Your task to perform on an android device: see tabs open on other devices in the chrome app Image 0: 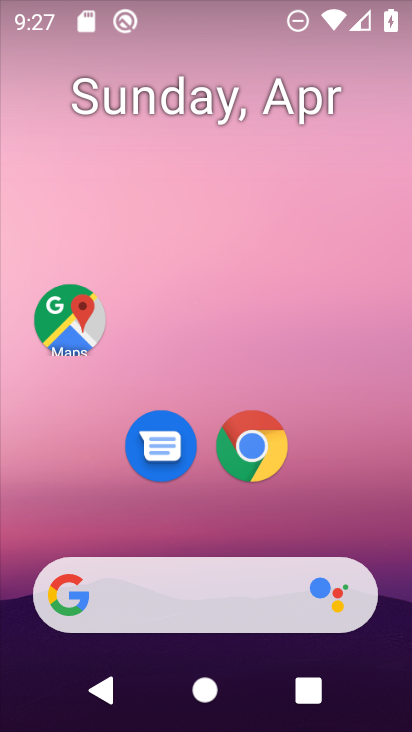
Step 0: click (281, 147)
Your task to perform on an android device: see tabs open on other devices in the chrome app Image 1: 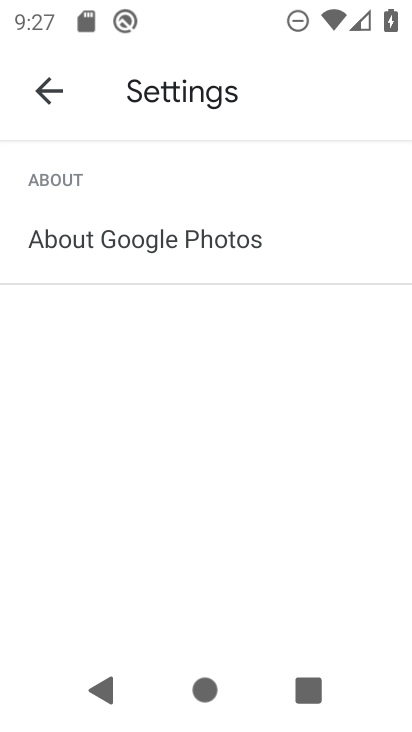
Step 1: press home button
Your task to perform on an android device: see tabs open on other devices in the chrome app Image 2: 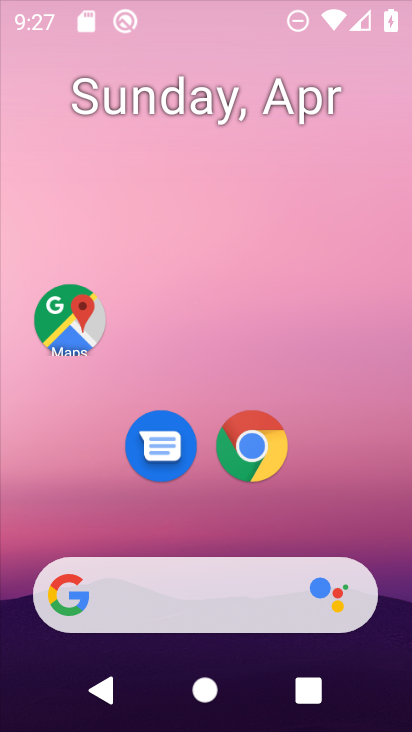
Step 2: drag from (149, 531) to (242, 191)
Your task to perform on an android device: see tabs open on other devices in the chrome app Image 3: 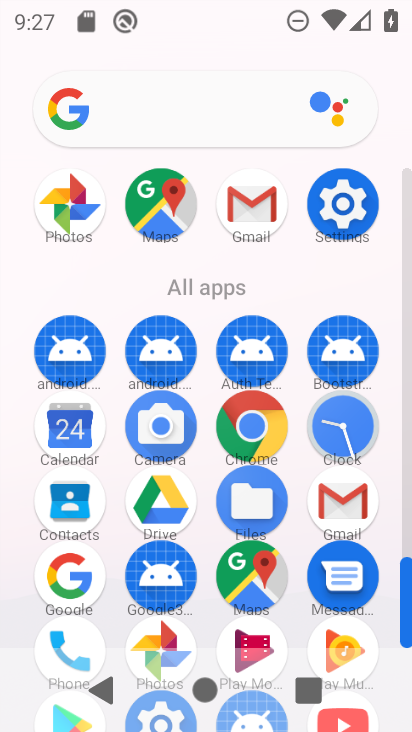
Step 3: click (256, 420)
Your task to perform on an android device: see tabs open on other devices in the chrome app Image 4: 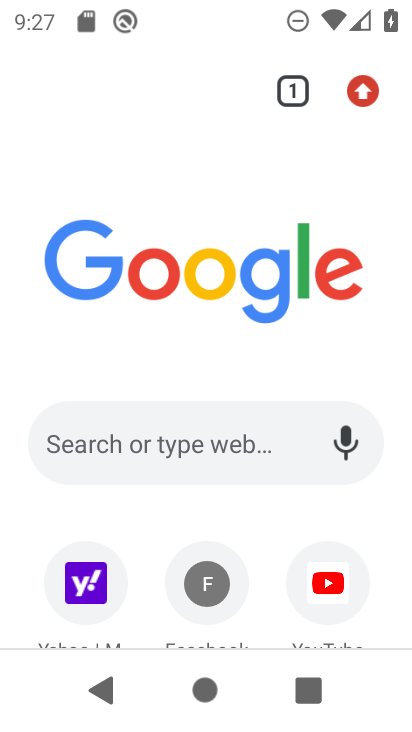
Step 4: drag from (268, 561) to (273, 206)
Your task to perform on an android device: see tabs open on other devices in the chrome app Image 5: 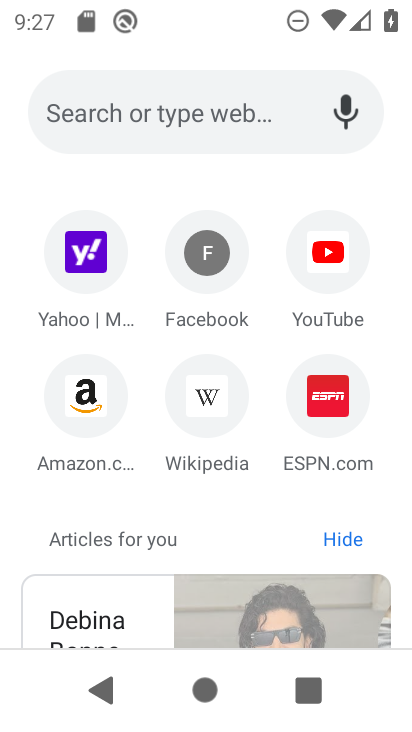
Step 5: click (370, 95)
Your task to perform on an android device: see tabs open on other devices in the chrome app Image 6: 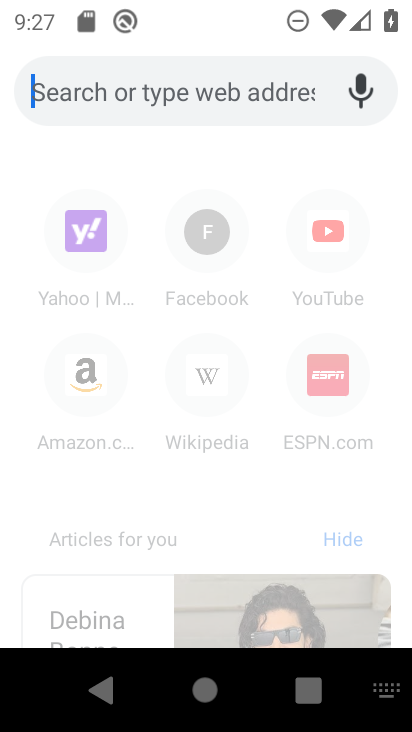
Step 6: drag from (236, 149) to (268, 652)
Your task to perform on an android device: see tabs open on other devices in the chrome app Image 7: 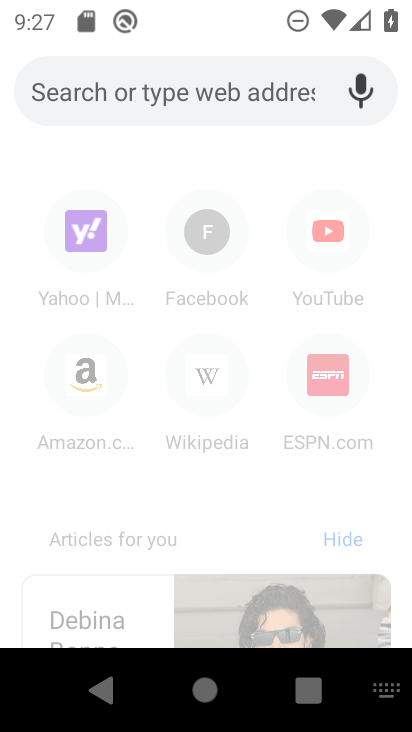
Step 7: drag from (273, 328) to (284, 683)
Your task to perform on an android device: see tabs open on other devices in the chrome app Image 8: 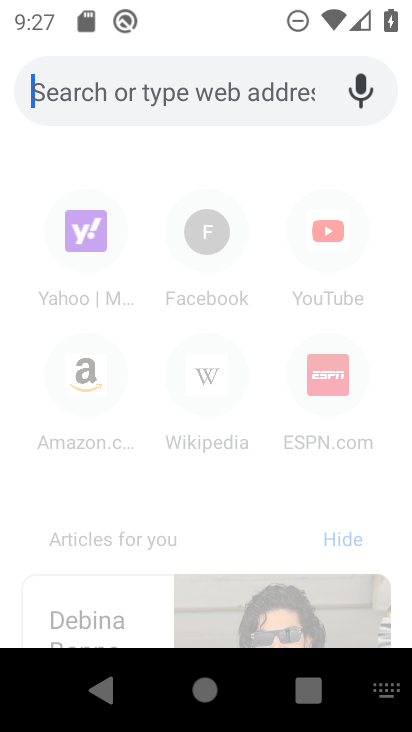
Step 8: click (263, 178)
Your task to perform on an android device: see tabs open on other devices in the chrome app Image 9: 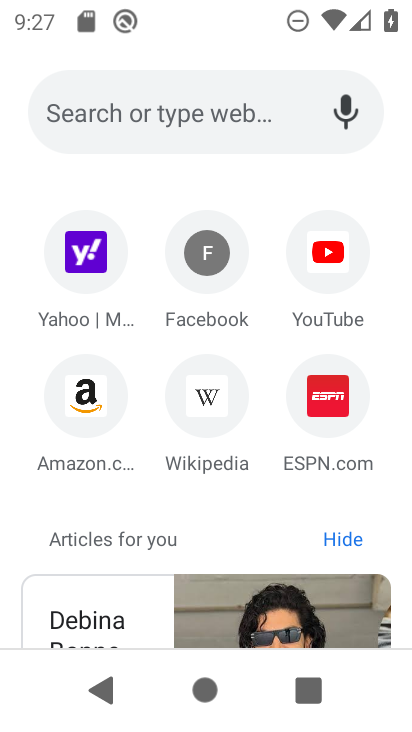
Step 9: drag from (276, 174) to (254, 631)
Your task to perform on an android device: see tabs open on other devices in the chrome app Image 10: 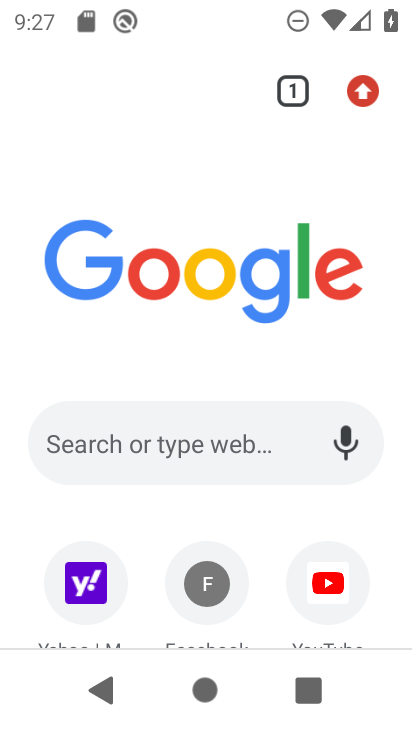
Step 10: drag from (365, 68) to (174, 232)
Your task to perform on an android device: see tabs open on other devices in the chrome app Image 11: 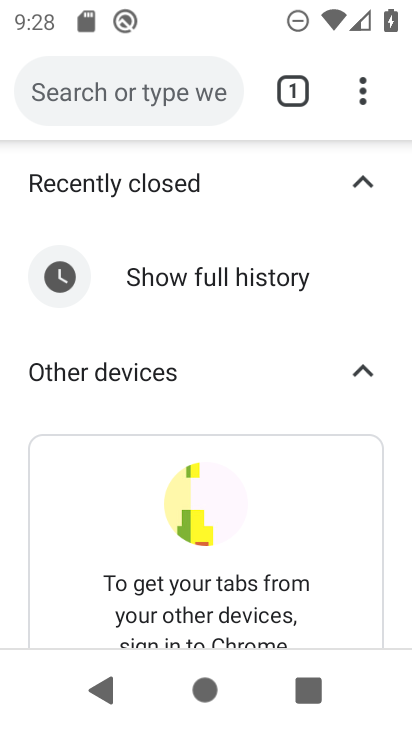
Step 11: drag from (231, 526) to (313, 134)
Your task to perform on an android device: see tabs open on other devices in the chrome app Image 12: 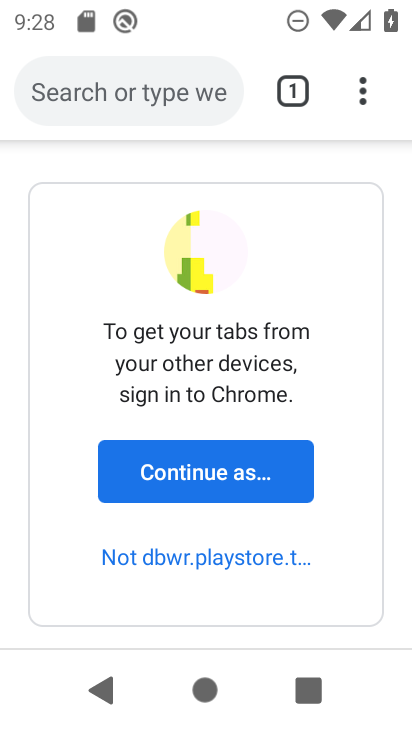
Step 12: drag from (229, 491) to (411, 166)
Your task to perform on an android device: see tabs open on other devices in the chrome app Image 13: 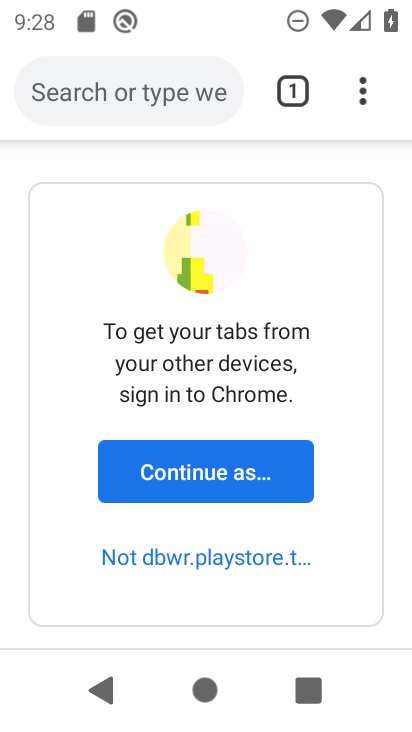
Step 13: drag from (306, 232) to (263, 725)
Your task to perform on an android device: see tabs open on other devices in the chrome app Image 14: 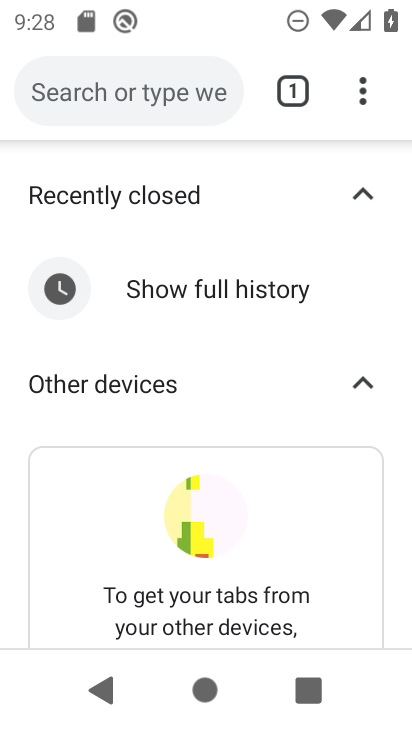
Step 14: click (360, 399)
Your task to perform on an android device: see tabs open on other devices in the chrome app Image 15: 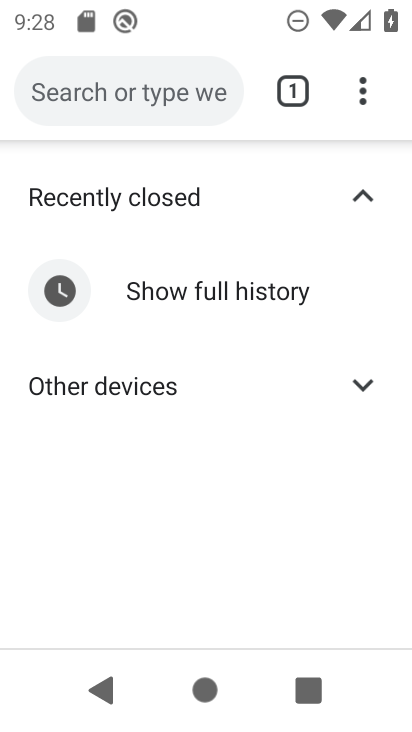
Step 15: click (354, 392)
Your task to perform on an android device: see tabs open on other devices in the chrome app Image 16: 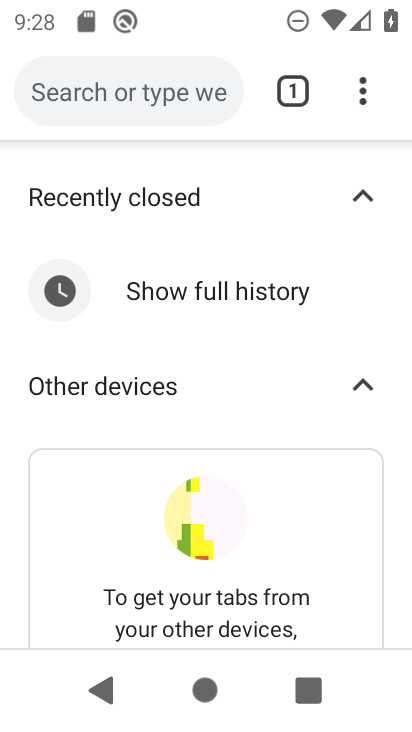
Step 16: task complete